Your task to perform on an android device: turn on priority inbox in the gmail app Image 0: 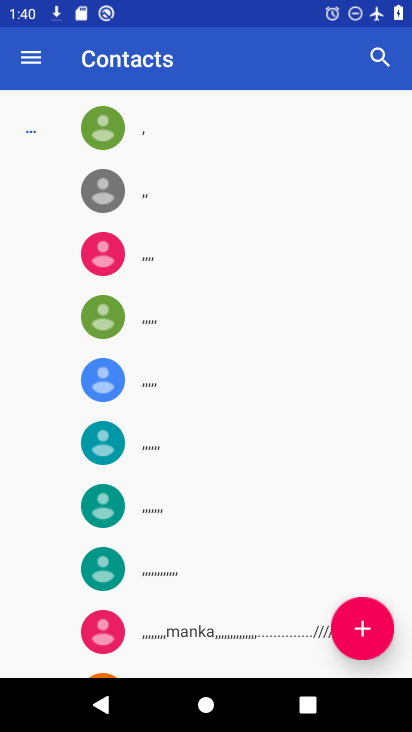
Step 0: press home button
Your task to perform on an android device: turn on priority inbox in the gmail app Image 1: 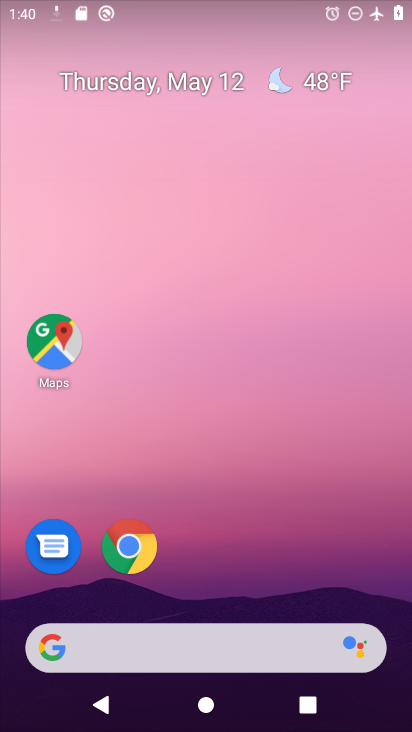
Step 1: drag from (219, 641) to (353, 247)
Your task to perform on an android device: turn on priority inbox in the gmail app Image 2: 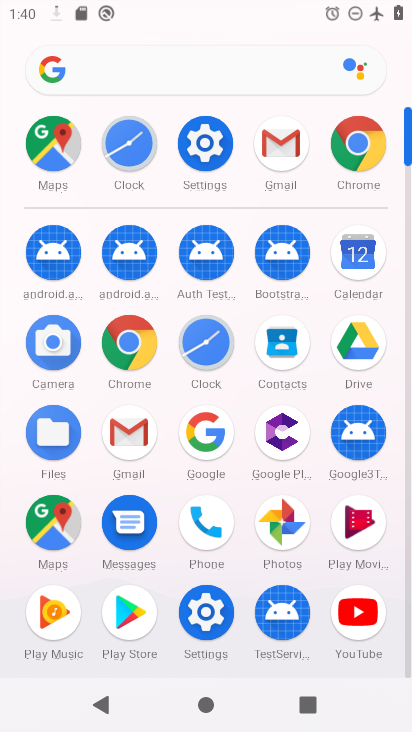
Step 2: click (288, 152)
Your task to perform on an android device: turn on priority inbox in the gmail app Image 3: 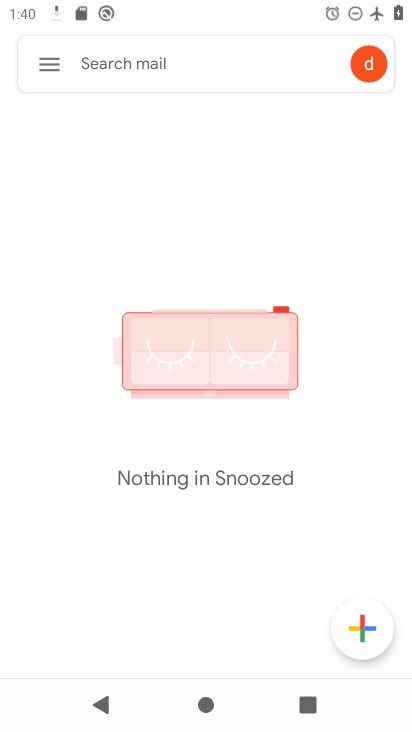
Step 3: click (52, 66)
Your task to perform on an android device: turn on priority inbox in the gmail app Image 4: 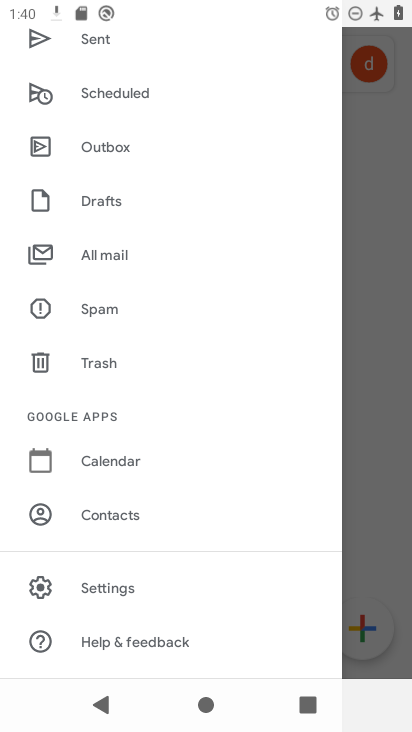
Step 4: click (117, 587)
Your task to perform on an android device: turn on priority inbox in the gmail app Image 5: 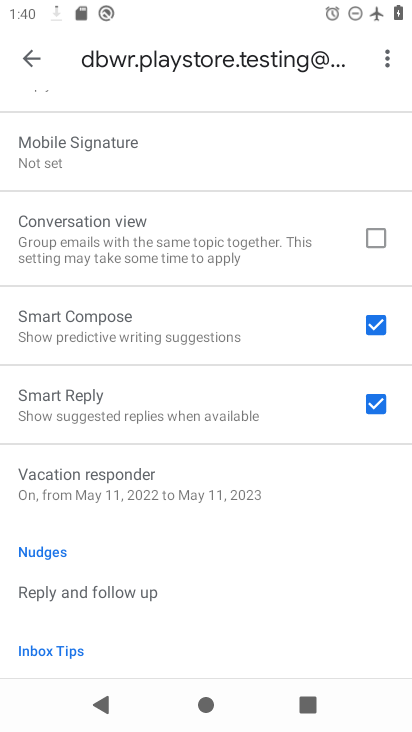
Step 5: drag from (247, 153) to (154, 561)
Your task to perform on an android device: turn on priority inbox in the gmail app Image 6: 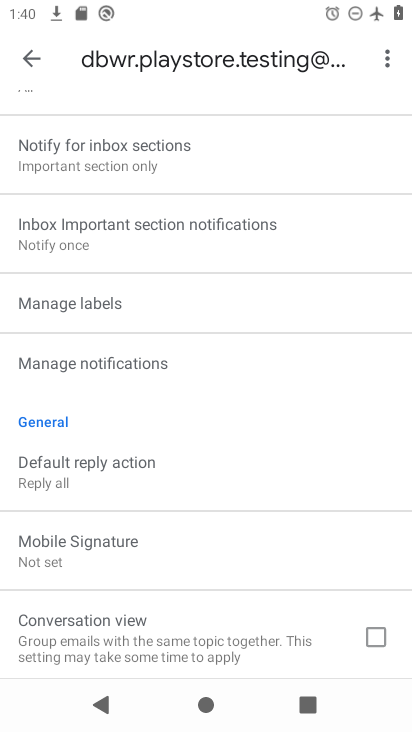
Step 6: drag from (237, 208) to (165, 545)
Your task to perform on an android device: turn on priority inbox in the gmail app Image 7: 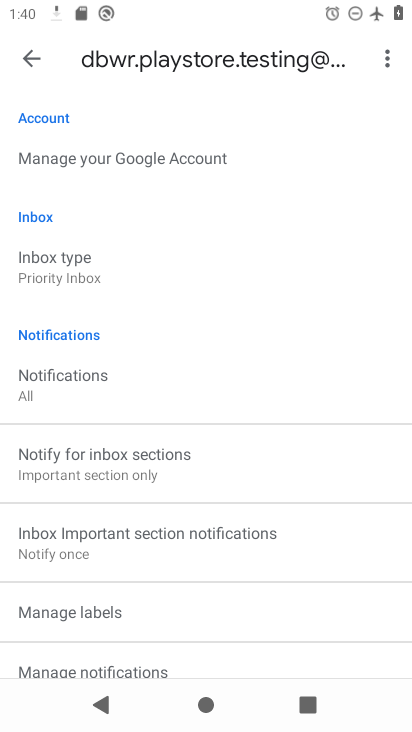
Step 7: click (63, 280)
Your task to perform on an android device: turn on priority inbox in the gmail app Image 8: 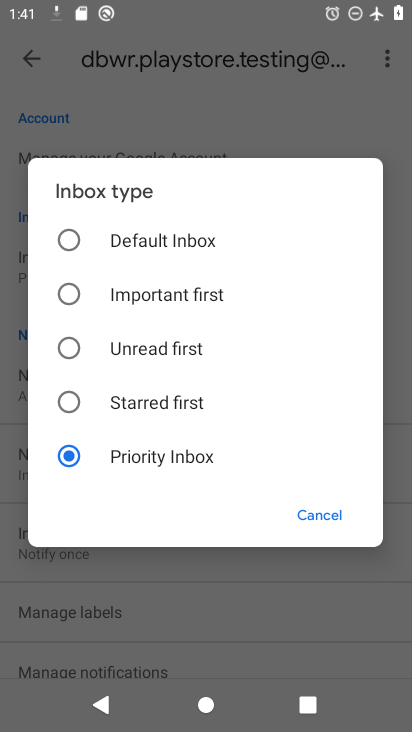
Step 8: task complete